Your task to perform on an android device: Open Youtube and go to the subscriptions tab Image 0: 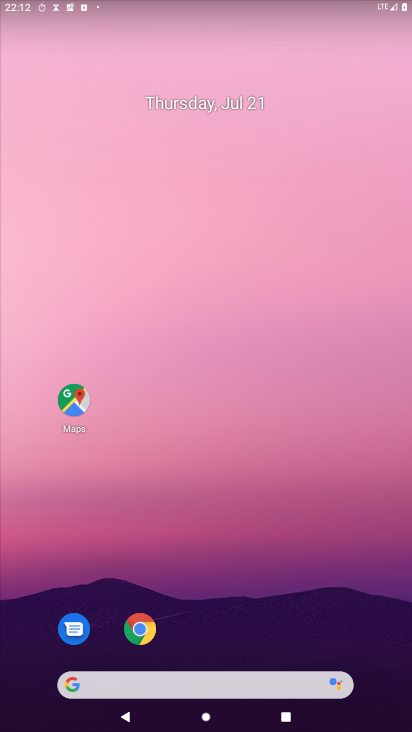
Step 0: drag from (257, 584) to (252, 194)
Your task to perform on an android device: Open Youtube and go to the subscriptions tab Image 1: 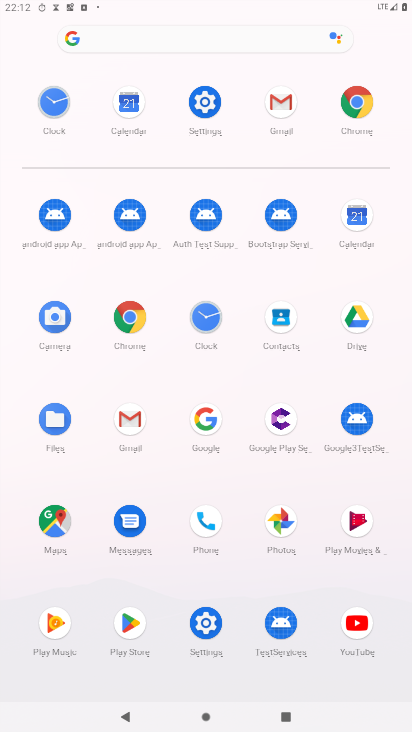
Step 1: click (344, 631)
Your task to perform on an android device: Open Youtube and go to the subscriptions tab Image 2: 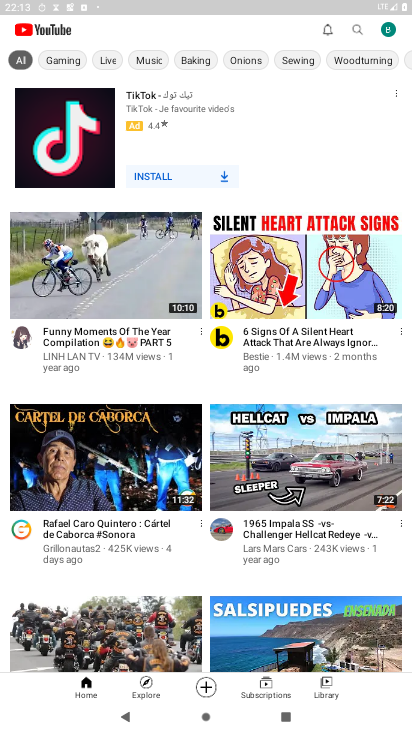
Step 2: click (264, 690)
Your task to perform on an android device: Open Youtube and go to the subscriptions tab Image 3: 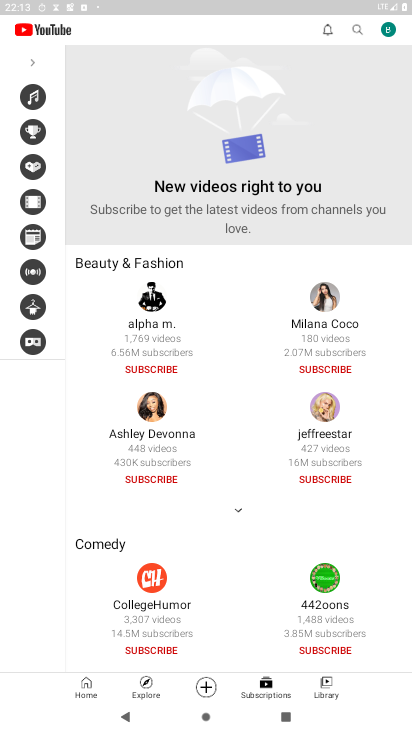
Step 3: task complete